Your task to perform on an android device: Open ESPN.com Image 0: 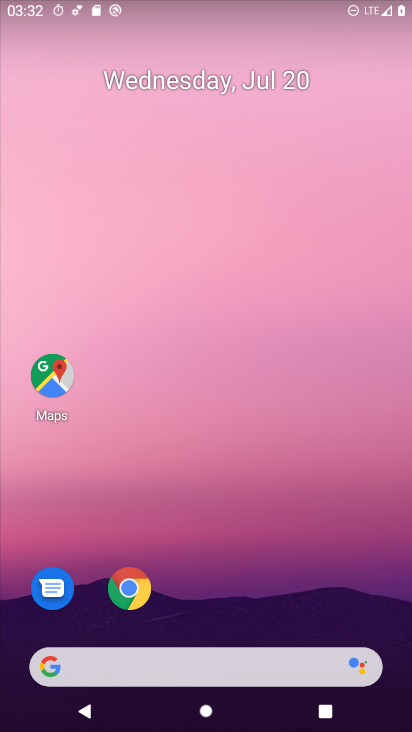
Step 0: click (126, 577)
Your task to perform on an android device: Open ESPN.com Image 1: 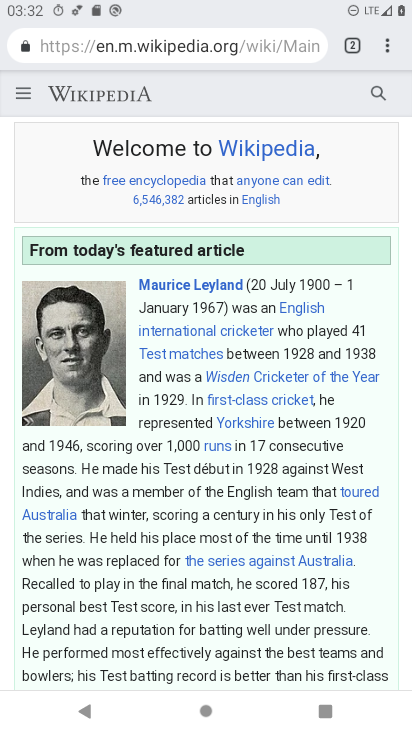
Step 1: click (354, 42)
Your task to perform on an android device: Open ESPN.com Image 2: 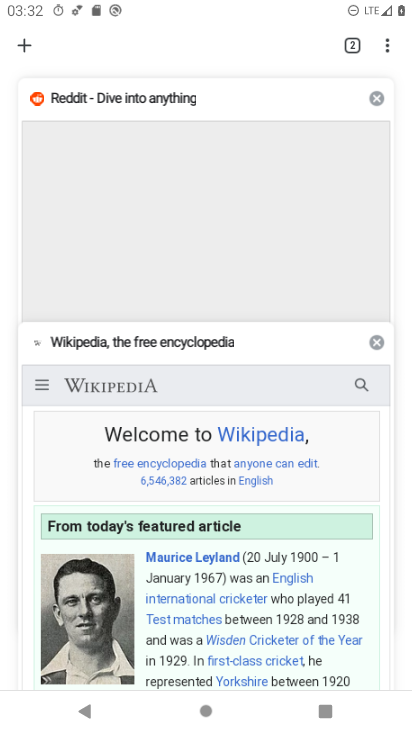
Step 2: click (35, 41)
Your task to perform on an android device: Open ESPN.com Image 3: 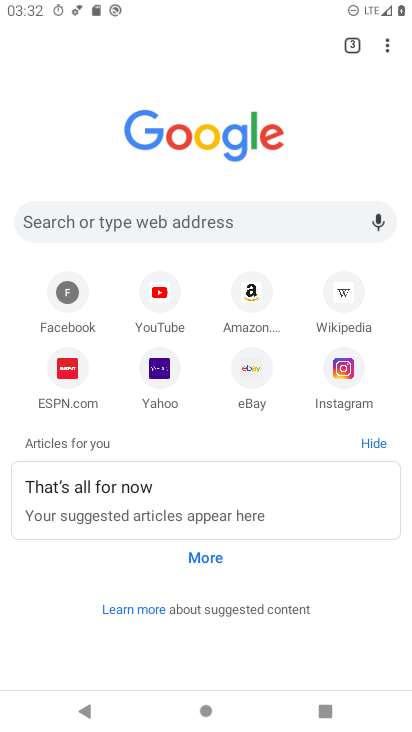
Step 3: click (58, 353)
Your task to perform on an android device: Open ESPN.com Image 4: 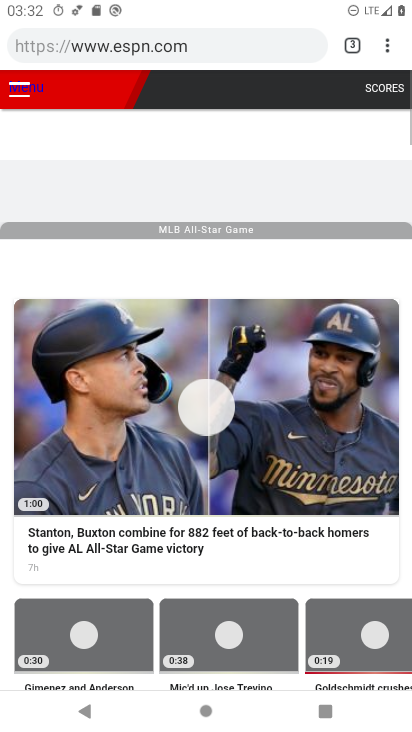
Step 4: task complete